Your task to perform on an android device: move an email to a new category in the gmail app Image 0: 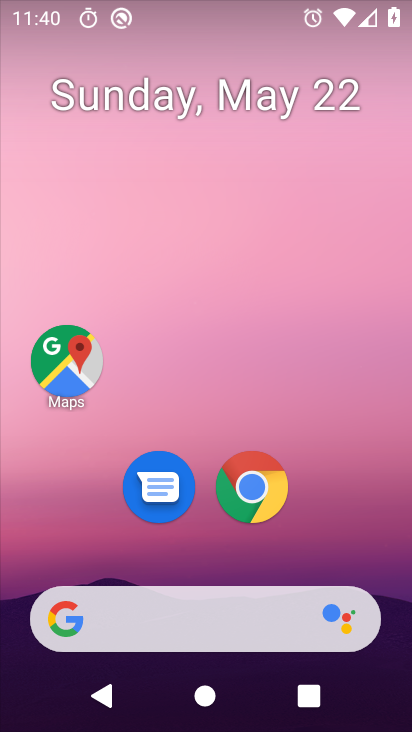
Step 0: drag from (355, 506) to (360, 115)
Your task to perform on an android device: move an email to a new category in the gmail app Image 1: 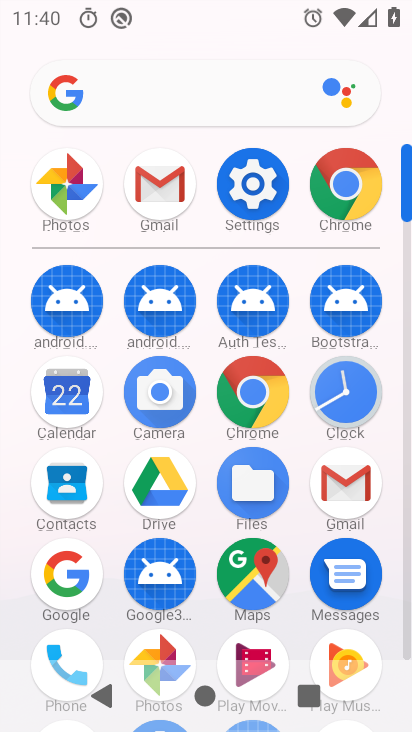
Step 1: click (342, 506)
Your task to perform on an android device: move an email to a new category in the gmail app Image 2: 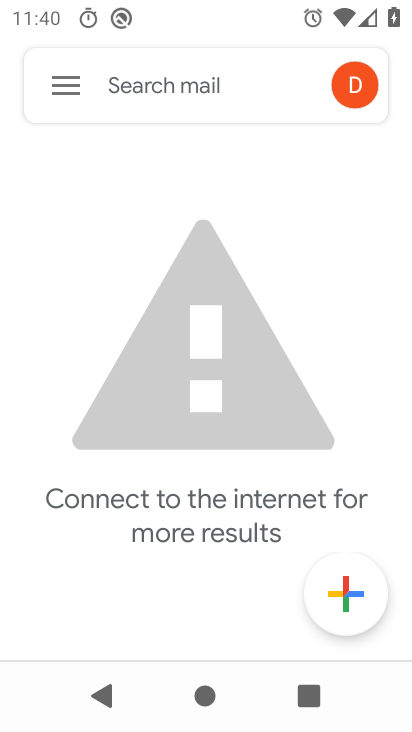
Step 2: click (56, 86)
Your task to perform on an android device: move an email to a new category in the gmail app Image 3: 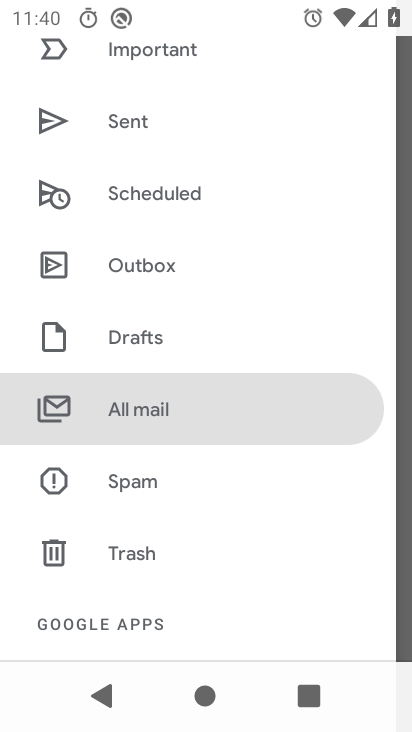
Step 3: click (157, 413)
Your task to perform on an android device: move an email to a new category in the gmail app Image 4: 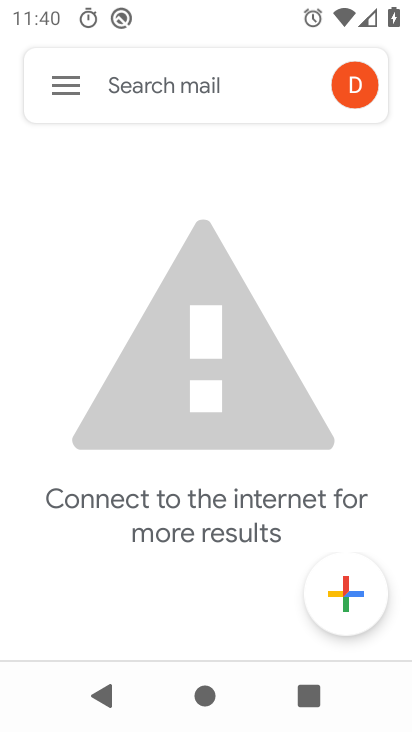
Step 4: task complete